Your task to perform on an android device: Go to Maps Image 0: 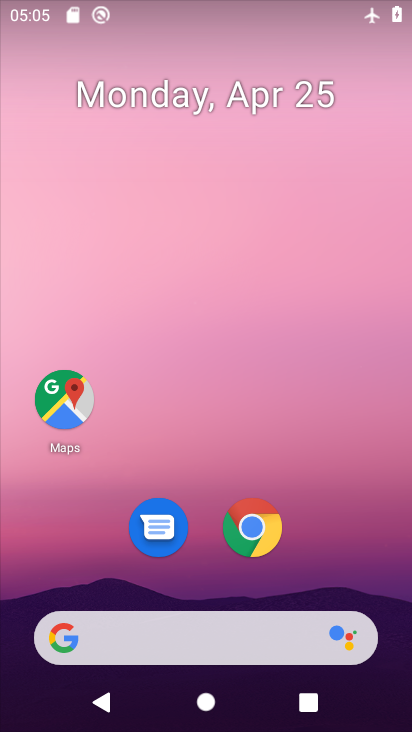
Step 0: click (60, 399)
Your task to perform on an android device: Go to Maps Image 1: 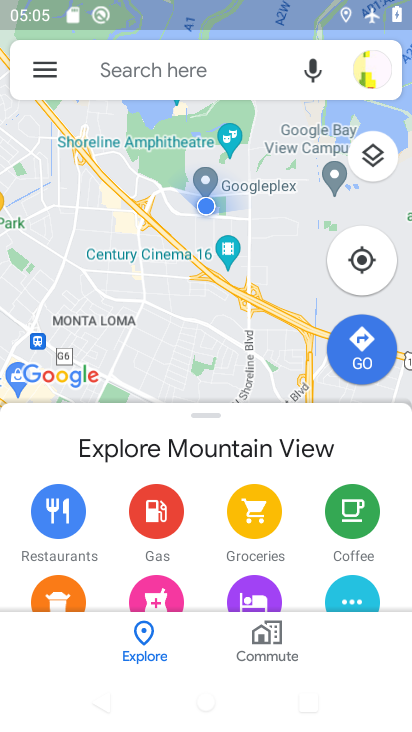
Step 1: task complete